Your task to perform on an android device: Open Maps and search for coffee Image 0: 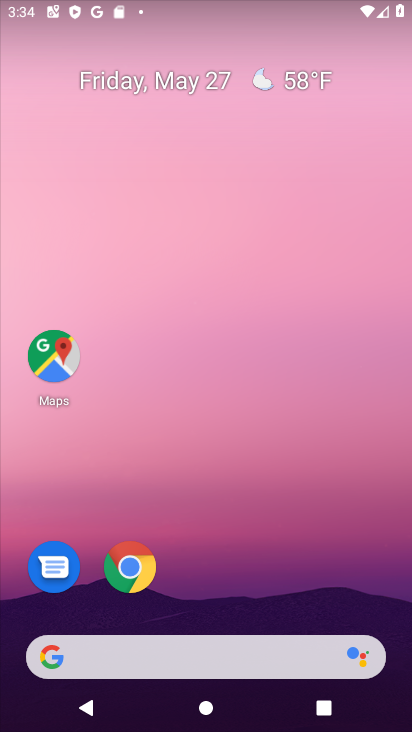
Step 0: drag from (218, 604) to (246, 72)
Your task to perform on an android device: Open Maps and search for coffee Image 1: 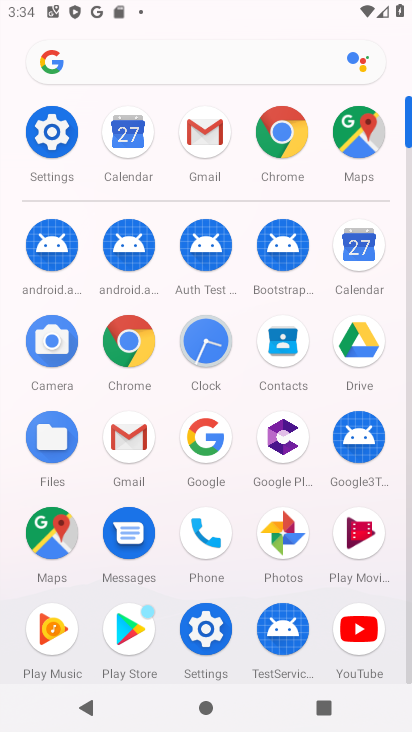
Step 1: click (358, 129)
Your task to perform on an android device: Open Maps and search for coffee Image 2: 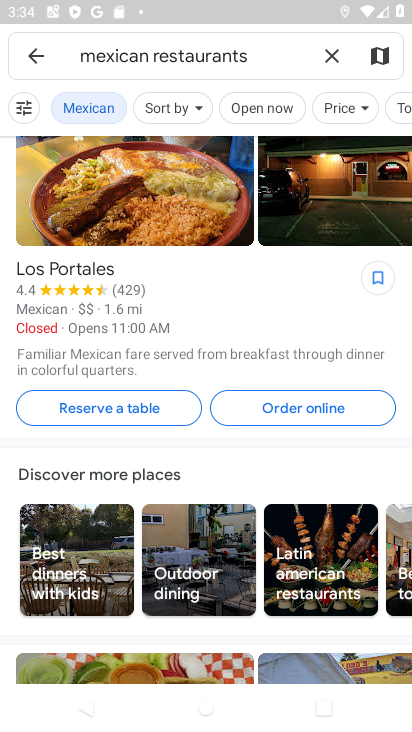
Step 2: click (329, 52)
Your task to perform on an android device: Open Maps and search for coffee Image 3: 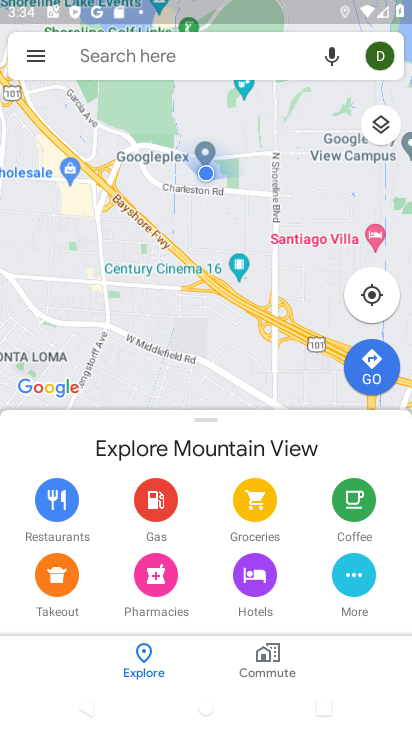
Step 3: click (109, 52)
Your task to perform on an android device: Open Maps and search for coffee Image 4: 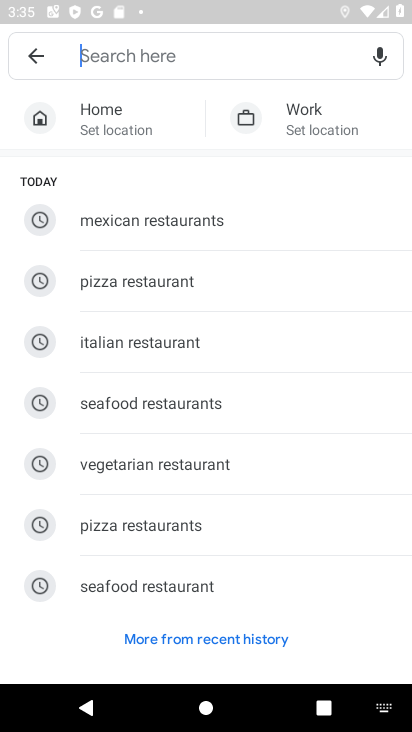
Step 4: type "coffee"
Your task to perform on an android device: Open Maps and search for coffee Image 5: 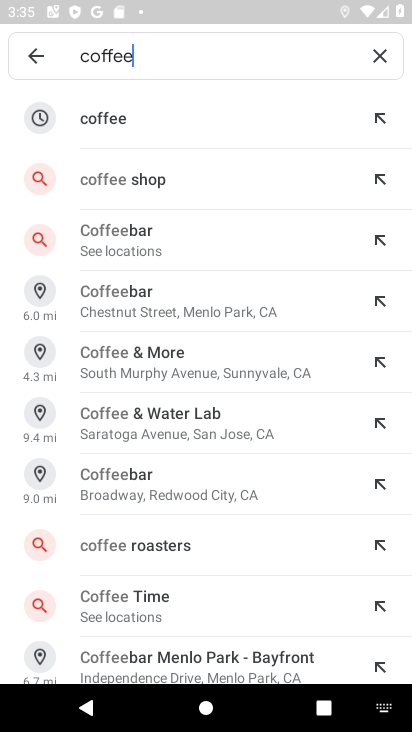
Step 5: click (187, 174)
Your task to perform on an android device: Open Maps and search for coffee Image 6: 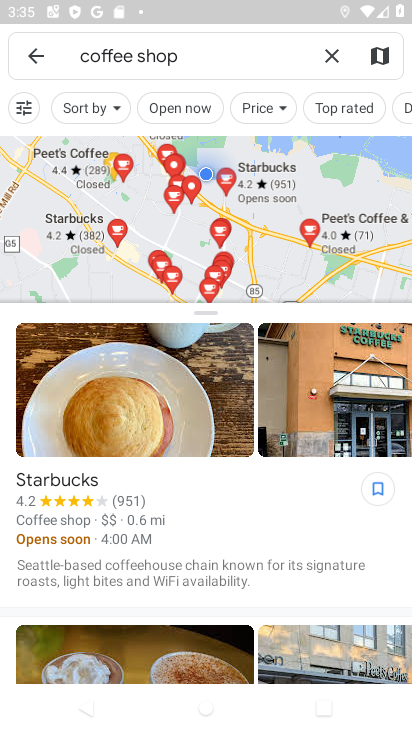
Step 6: task complete